Your task to perform on an android device: add a contact in the contacts app Image 0: 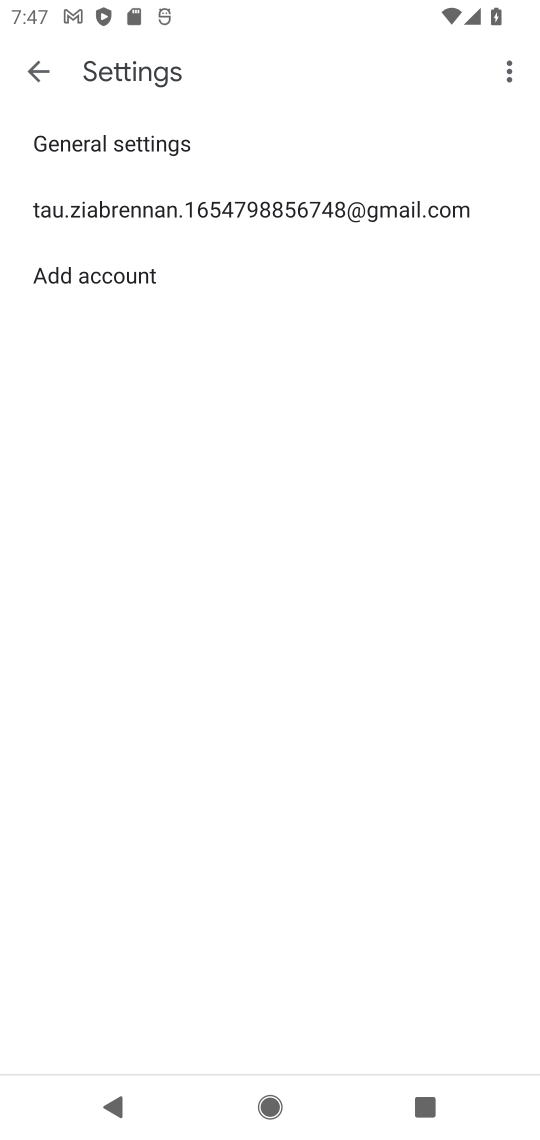
Step 0: press home button
Your task to perform on an android device: add a contact in the contacts app Image 1: 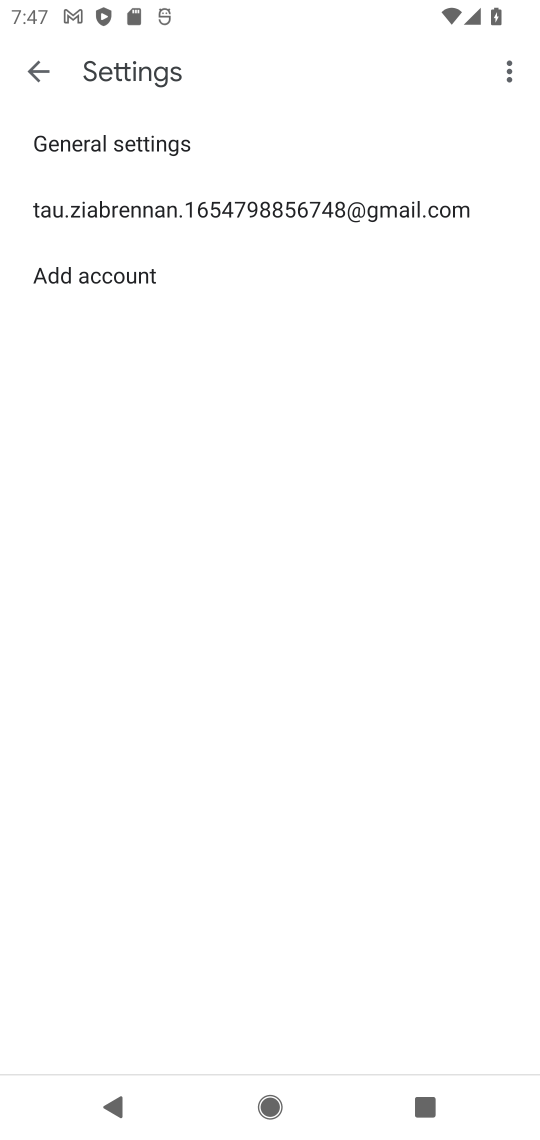
Step 1: press home button
Your task to perform on an android device: add a contact in the contacts app Image 2: 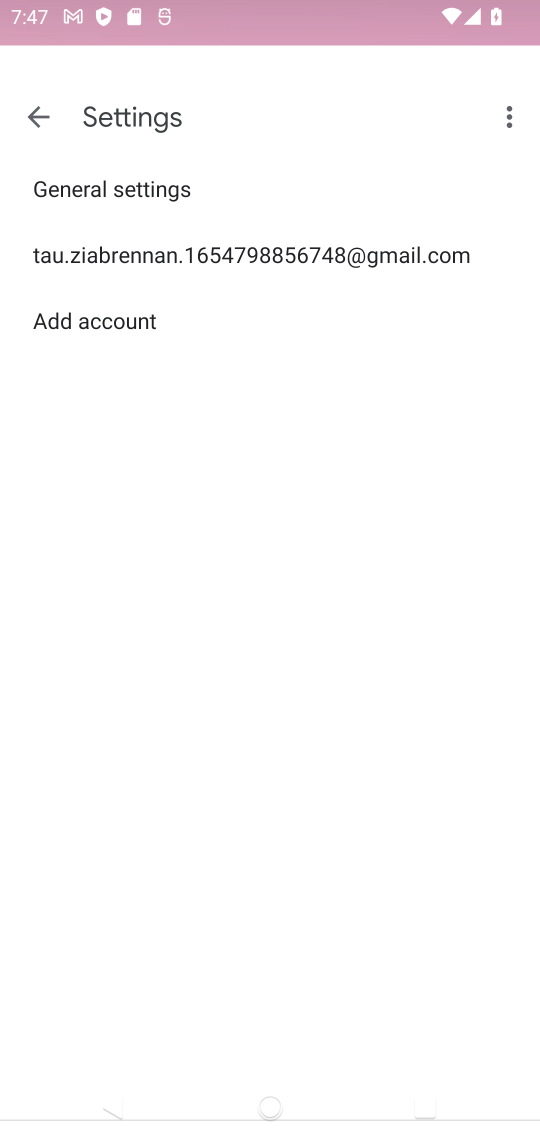
Step 2: press home button
Your task to perform on an android device: add a contact in the contacts app Image 3: 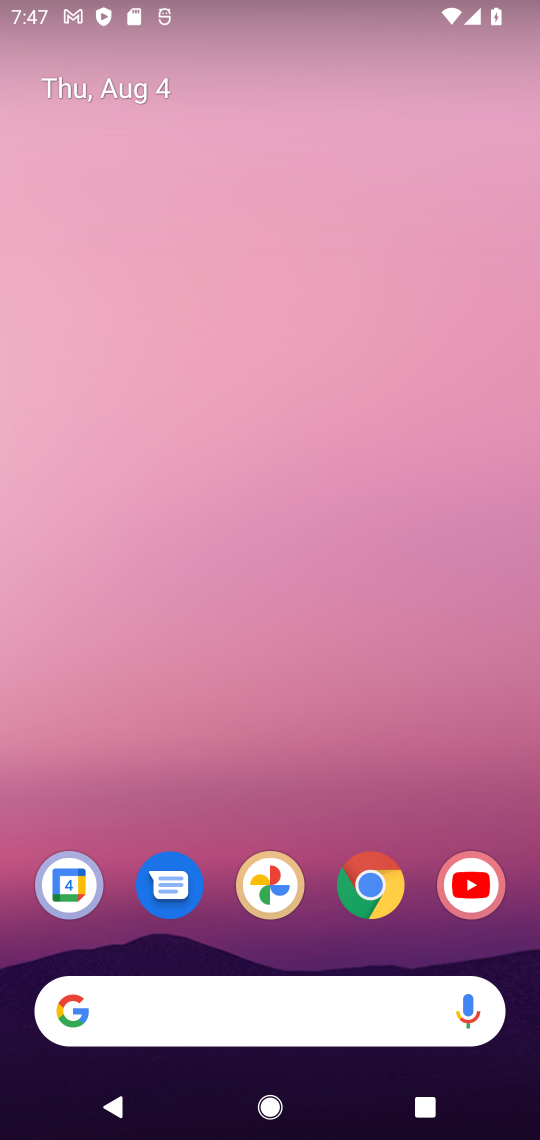
Step 3: press back button
Your task to perform on an android device: add a contact in the contacts app Image 4: 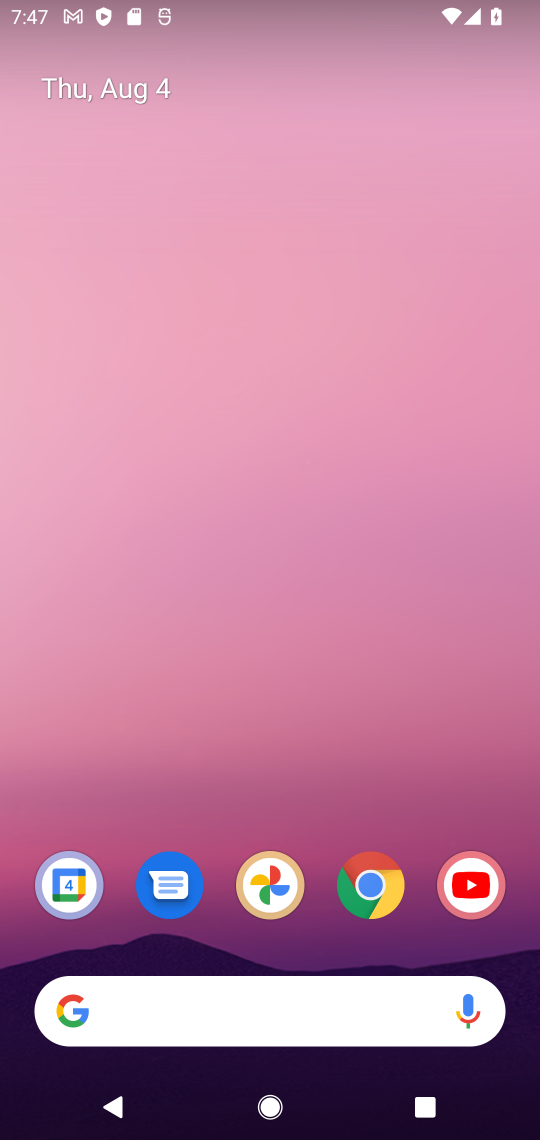
Step 4: press home button
Your task to perform on an android device: add a contact in the contacts app Image 5: 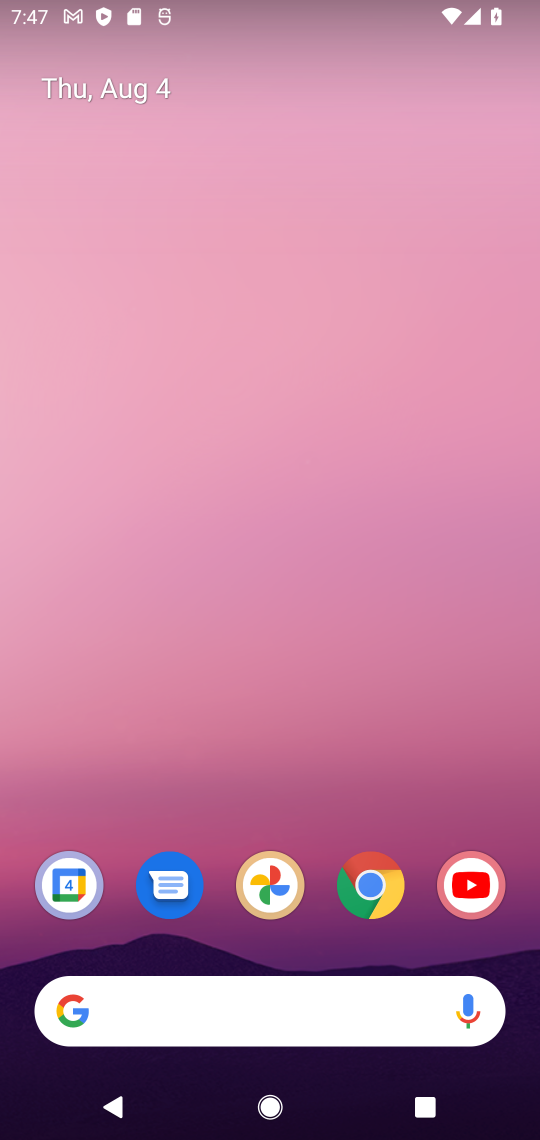
Step 5: drag from (292, 936) to (276, 61)
Your task to perform on an android device: add a contact in the contacts app Image 6: 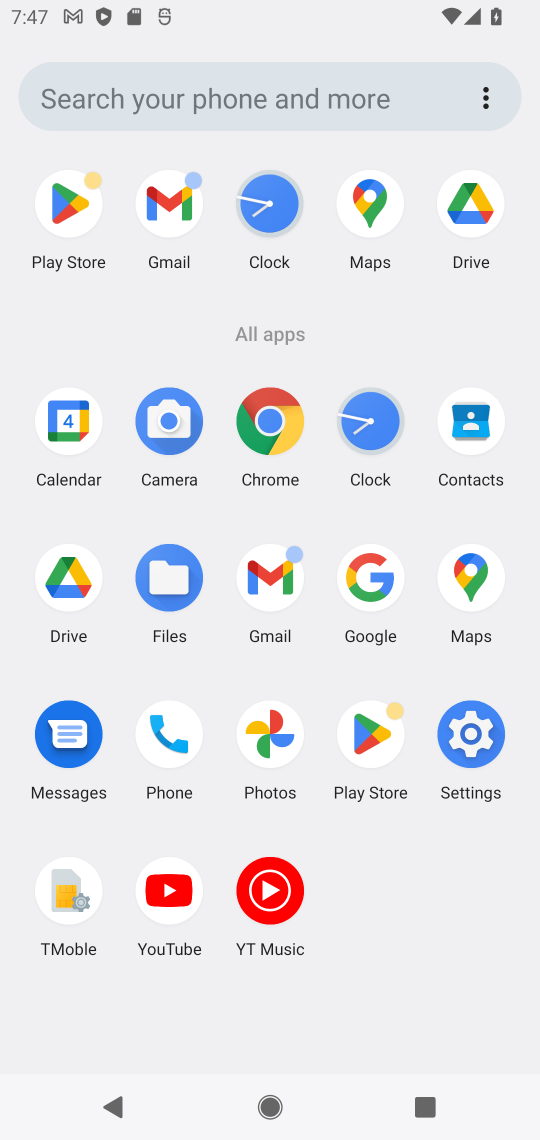
Step 6: click (477, 430)
Your task to perform on an android device: add a contact in the contacts app Image 7: 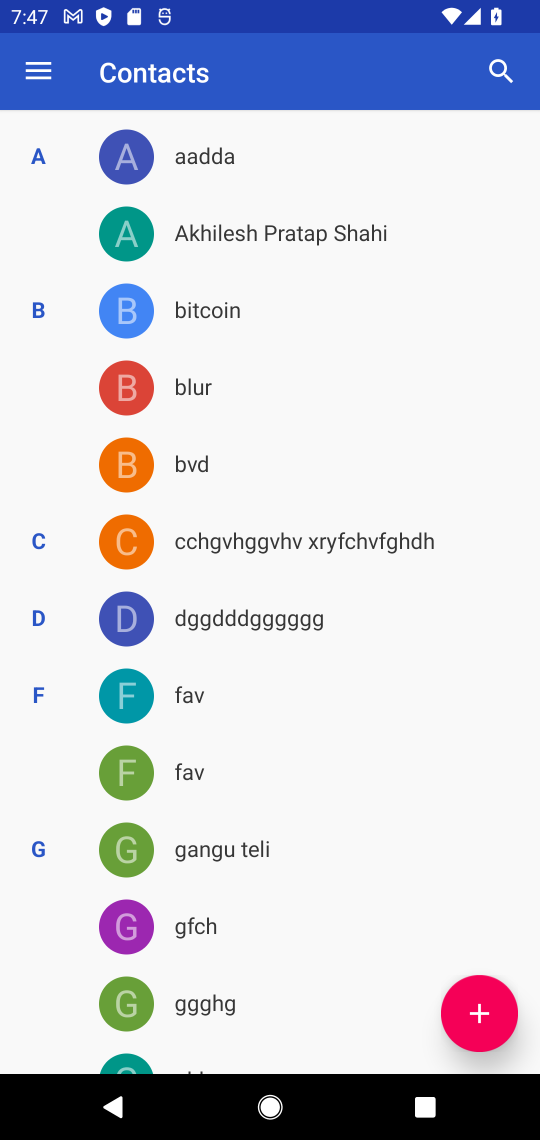
Step 7: click (481, 1003)
Your task to perform on an android device: add a contact in the contacts app Image 8: 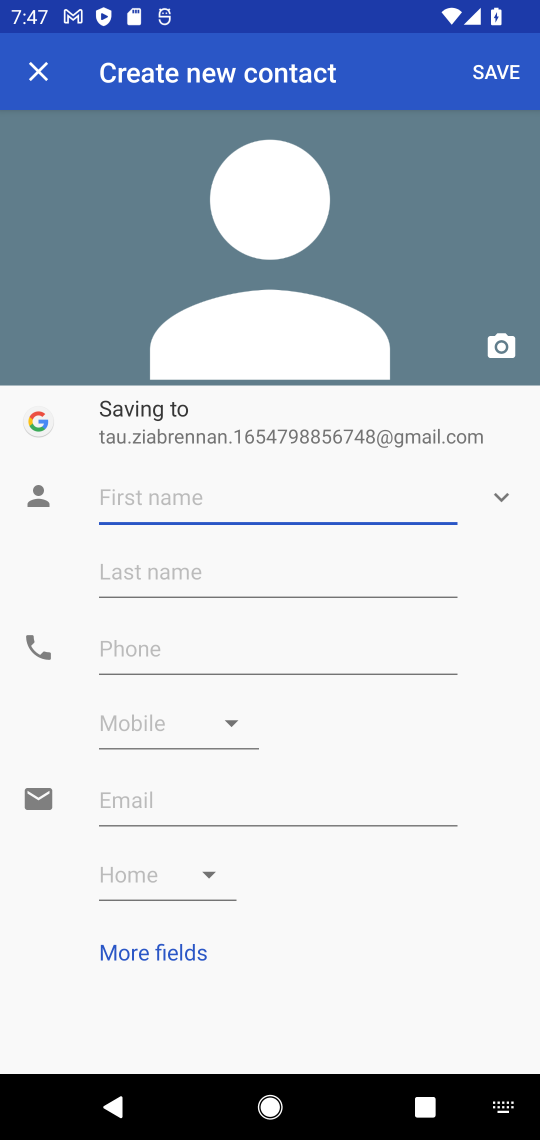
Step 8: type "vidhs"
Your task to perform on an android device: add a contact in the contacts app Image 9: 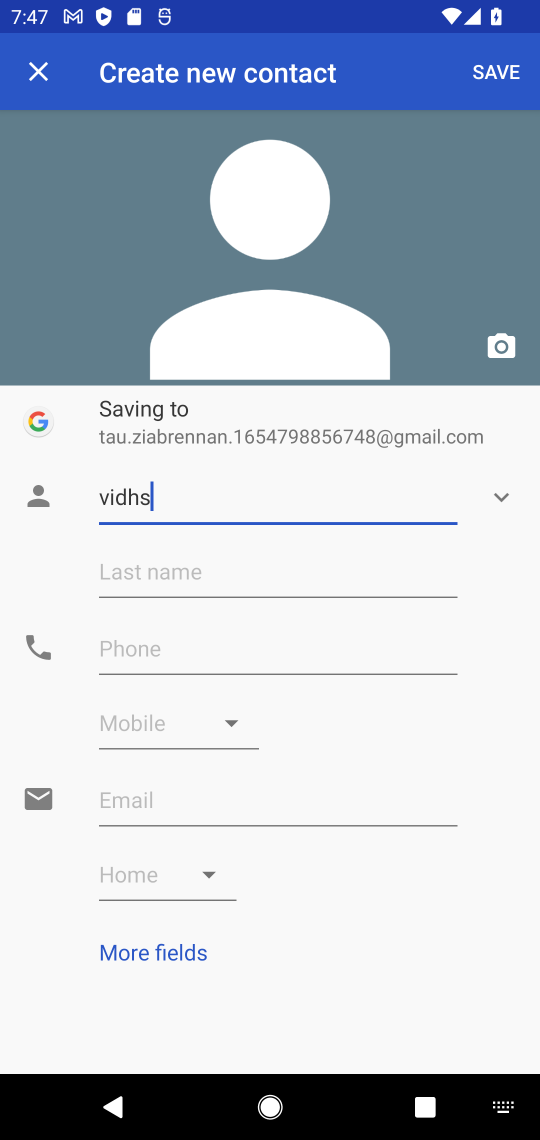
Step 9: click (189, 651)
Your task to perform on an android device: add a contact in the contacts app Image 10: 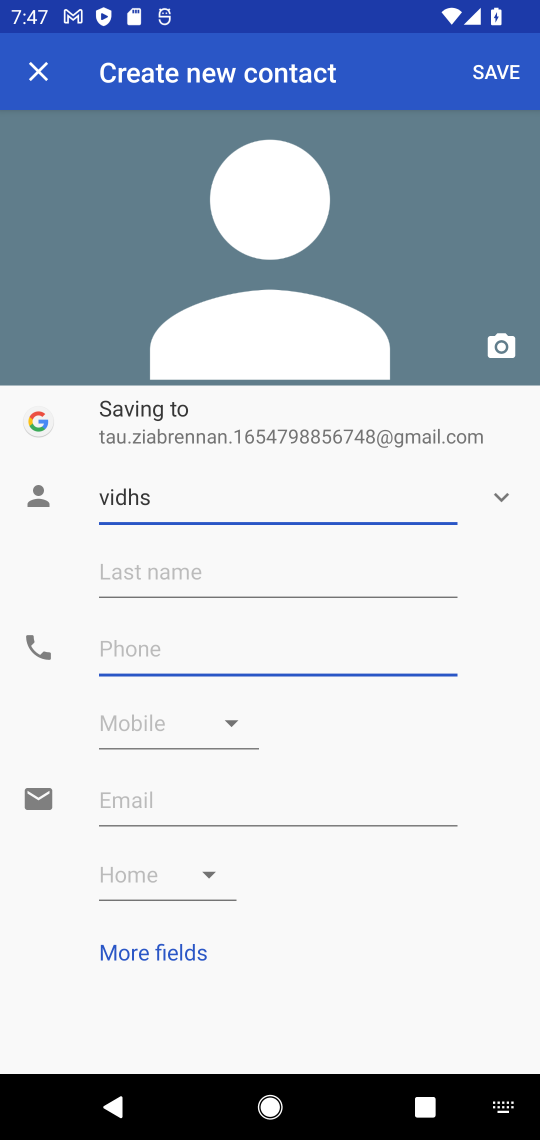
Step 10: click (189, 651)
Your task to perform on an android device: add a contact in the contacts app Image 11: 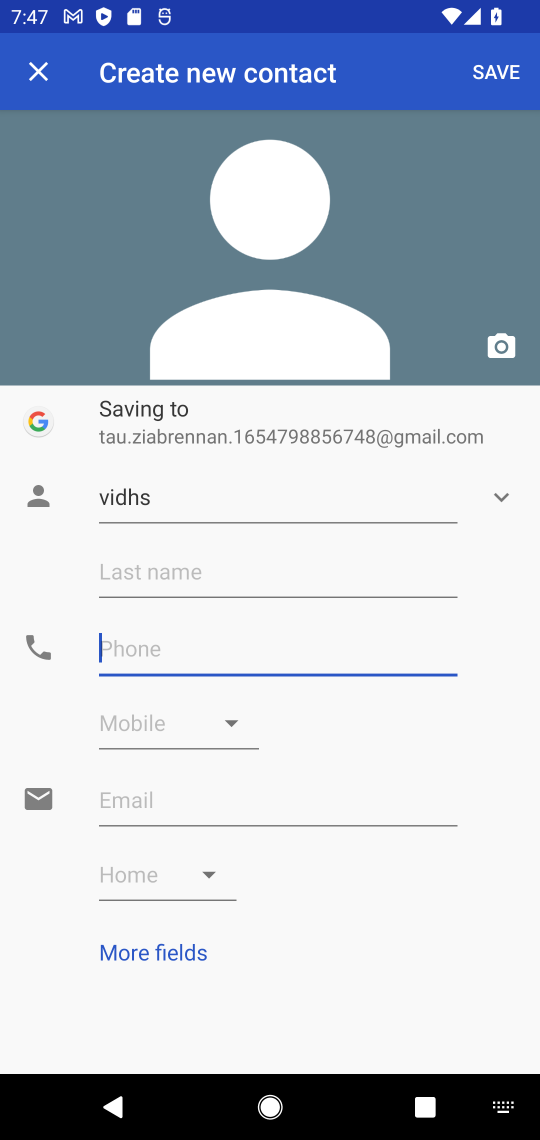
Step 11: click (189, 651)
Your task to perform on an android device: add a contact in the contacts app Image 12: 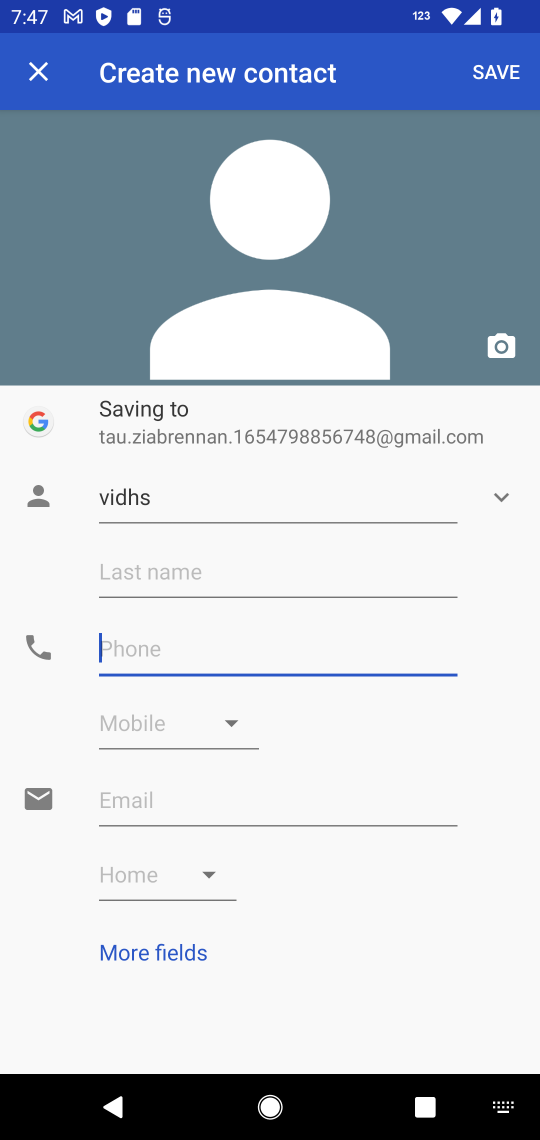
Step 12: type "347839020"
Your task to perform on an android device: add a contact in the contacts app Image 13: 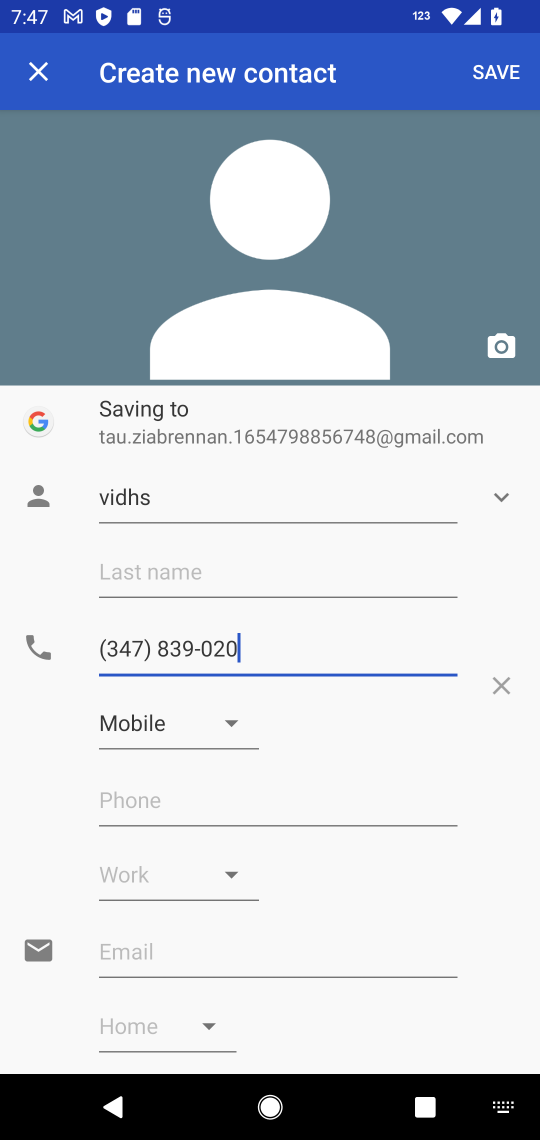
Step 13: click (510, 77)
Your task to perform on an android device: add a contact in the contacts app Image 14: 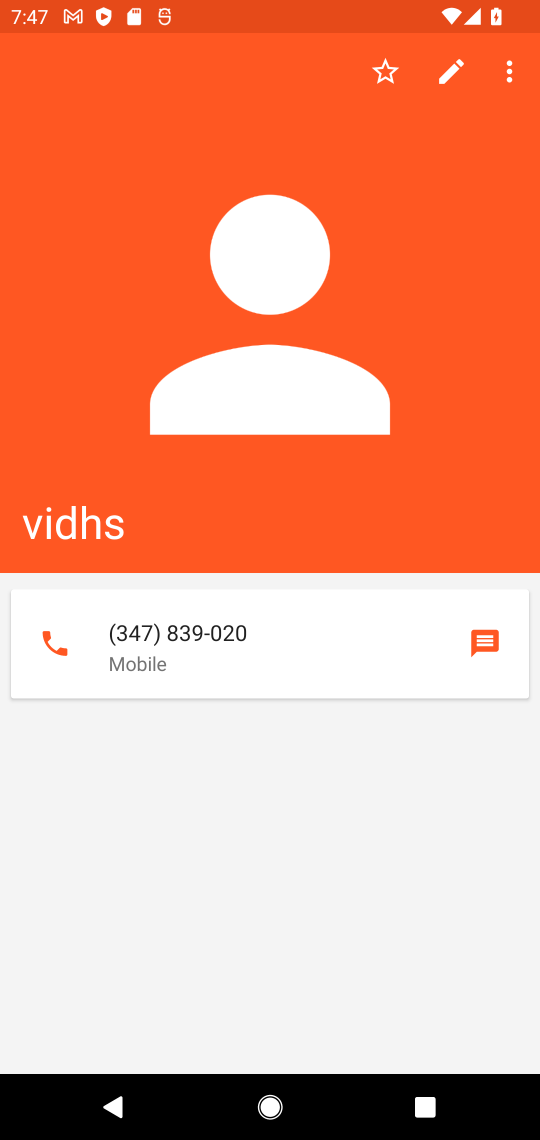
Step 14: task complete